Your task to perform on an android device: Open Amazon Image 0: 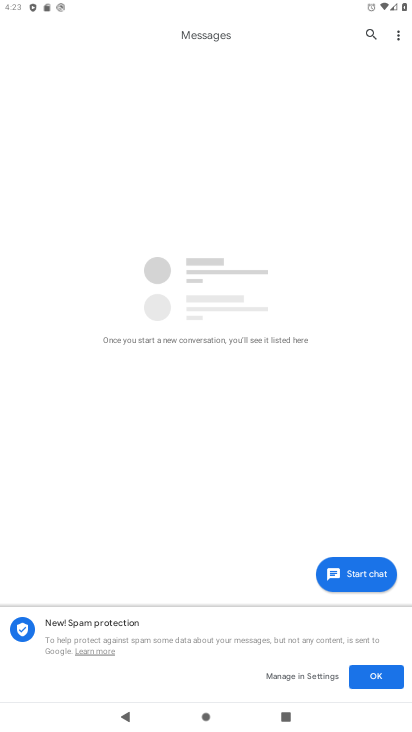
Step 0: press home button
Your task to perform on an android device: Open Amazon Image 1: 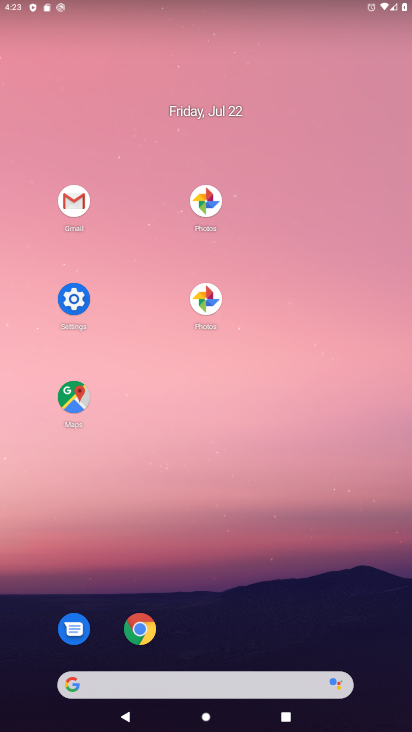
Step 1: click (150, 628)
Your task to perform on an android device: Open Amazon Image 2: 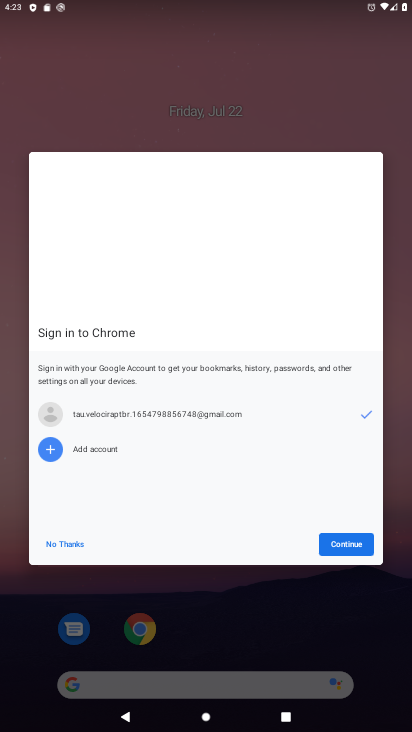
Step 2: click (323, 557)
Your task to perform on an android device: Open Amazon Image 3: 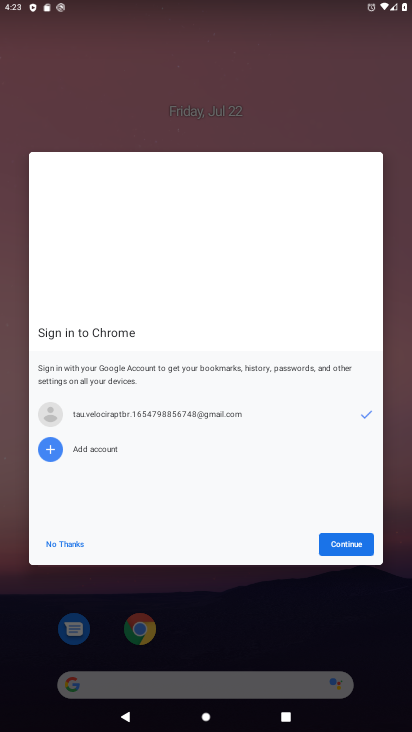
Step 3: click (334, 542)
Your task to perform on an android device: Open Amazon Image 4: 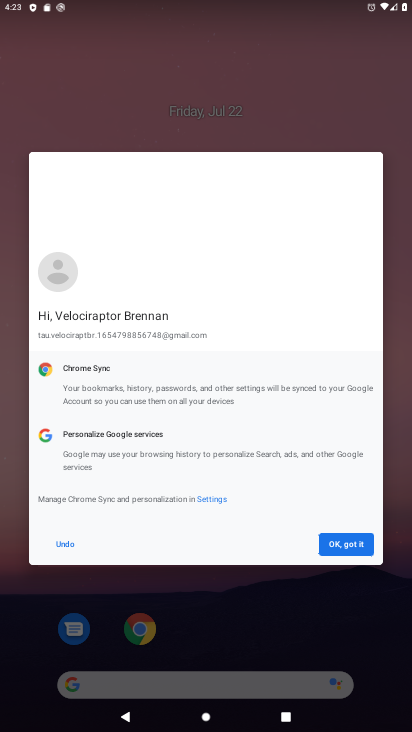
Step 4: click (335, 542)
Your task to perform on an android device: Open Amazon Image 5: 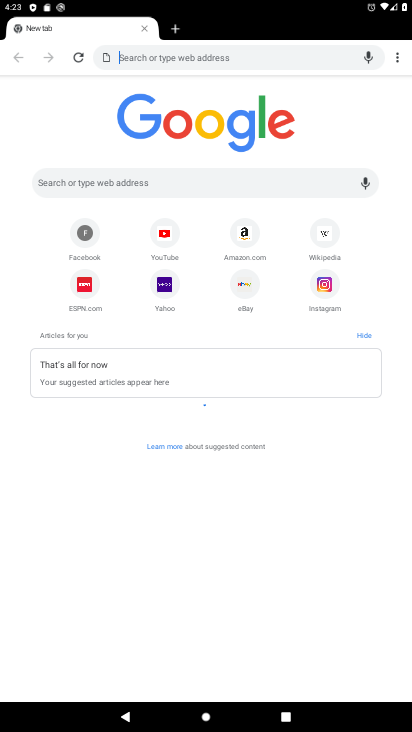
Step 5: click (227, 233)
Your task to perform on an android device: Open Amazon Image 6: 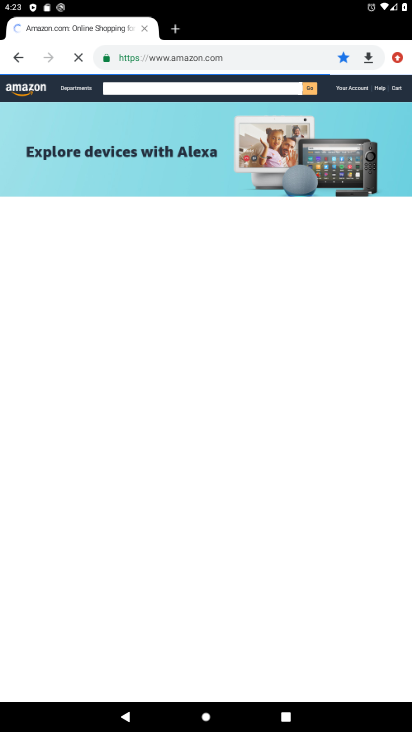
Step 6: task complete